Your task to perform on an android device: open app "Gboard" Image 0: 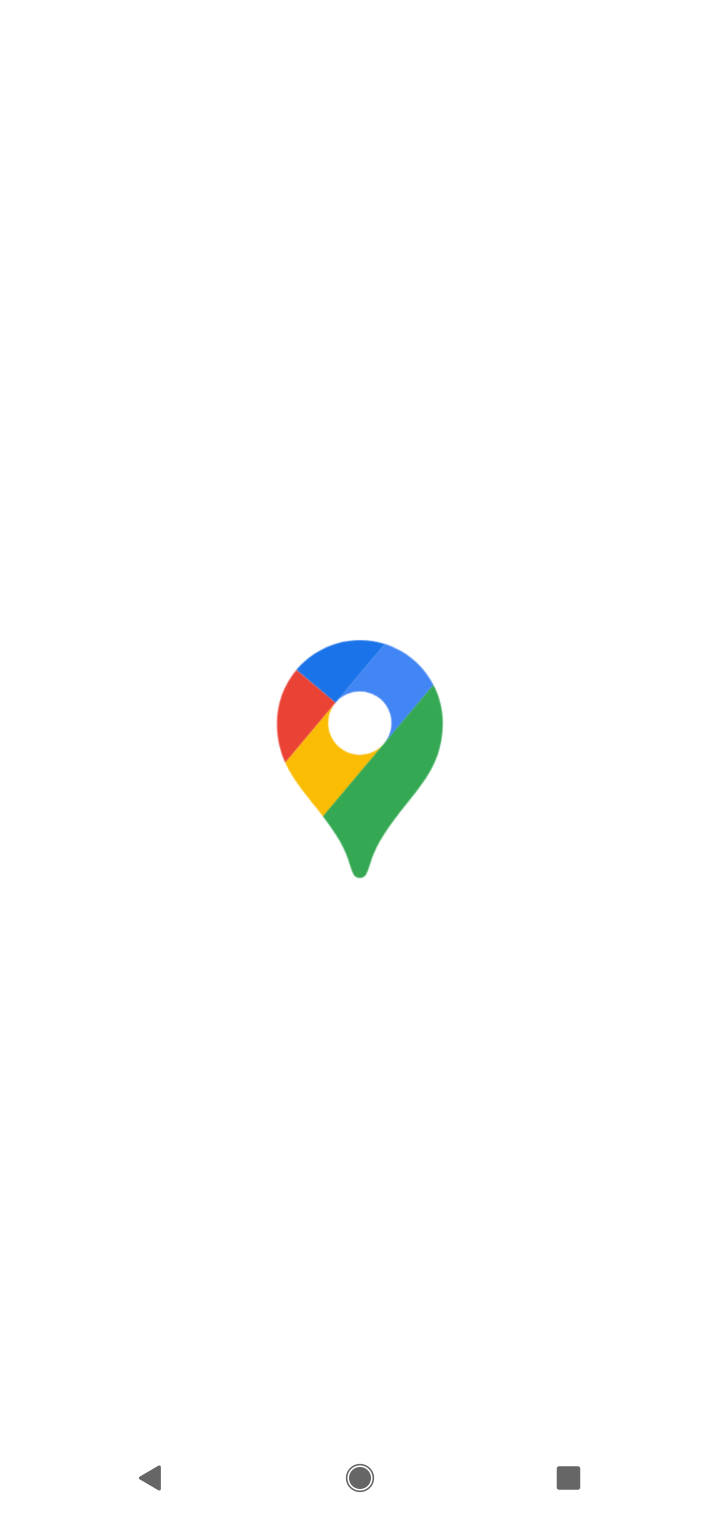
Step 0: press home button
Your task to perform on an android device: open app "Gboard" Image 1: 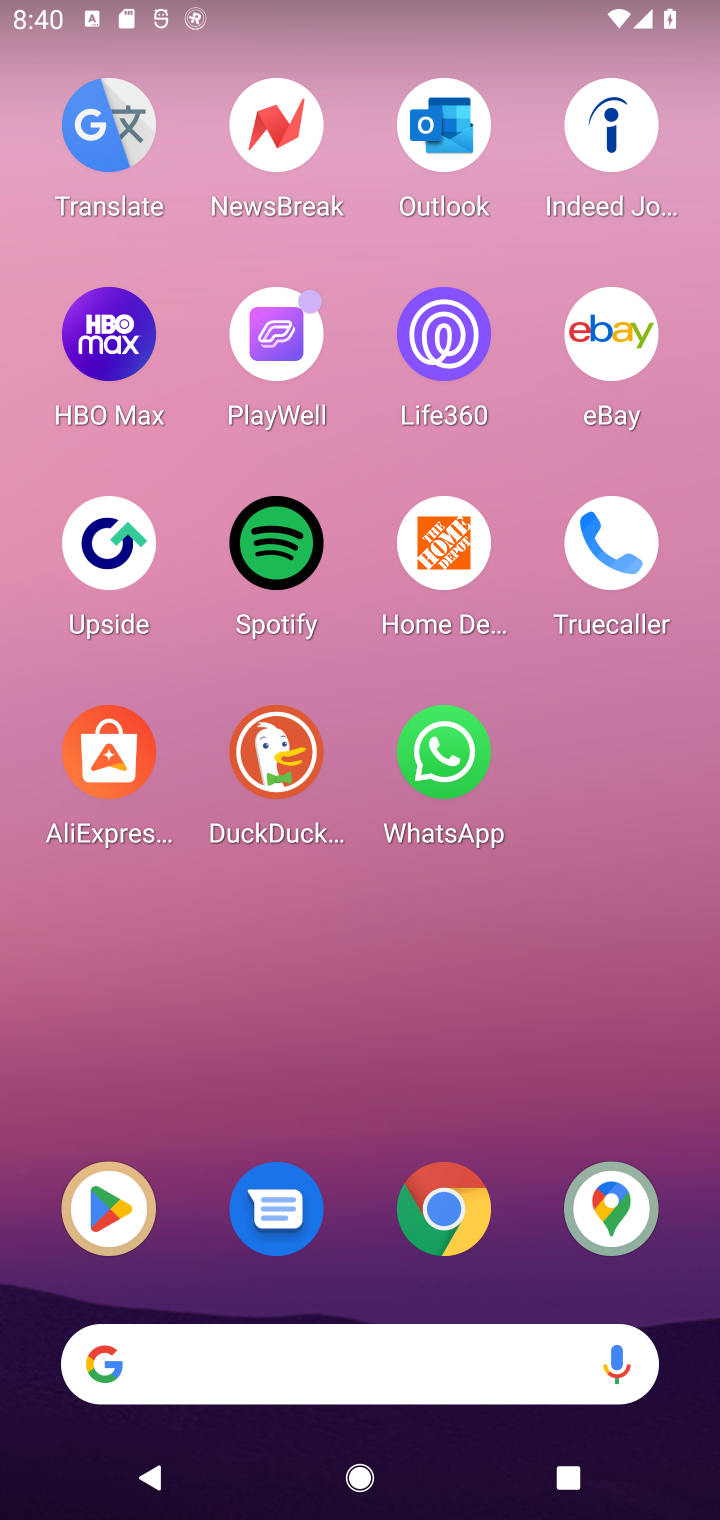
Step 1: click (107, 1201)
Your task to perform on an android device: open app "Gboard" Image 2: 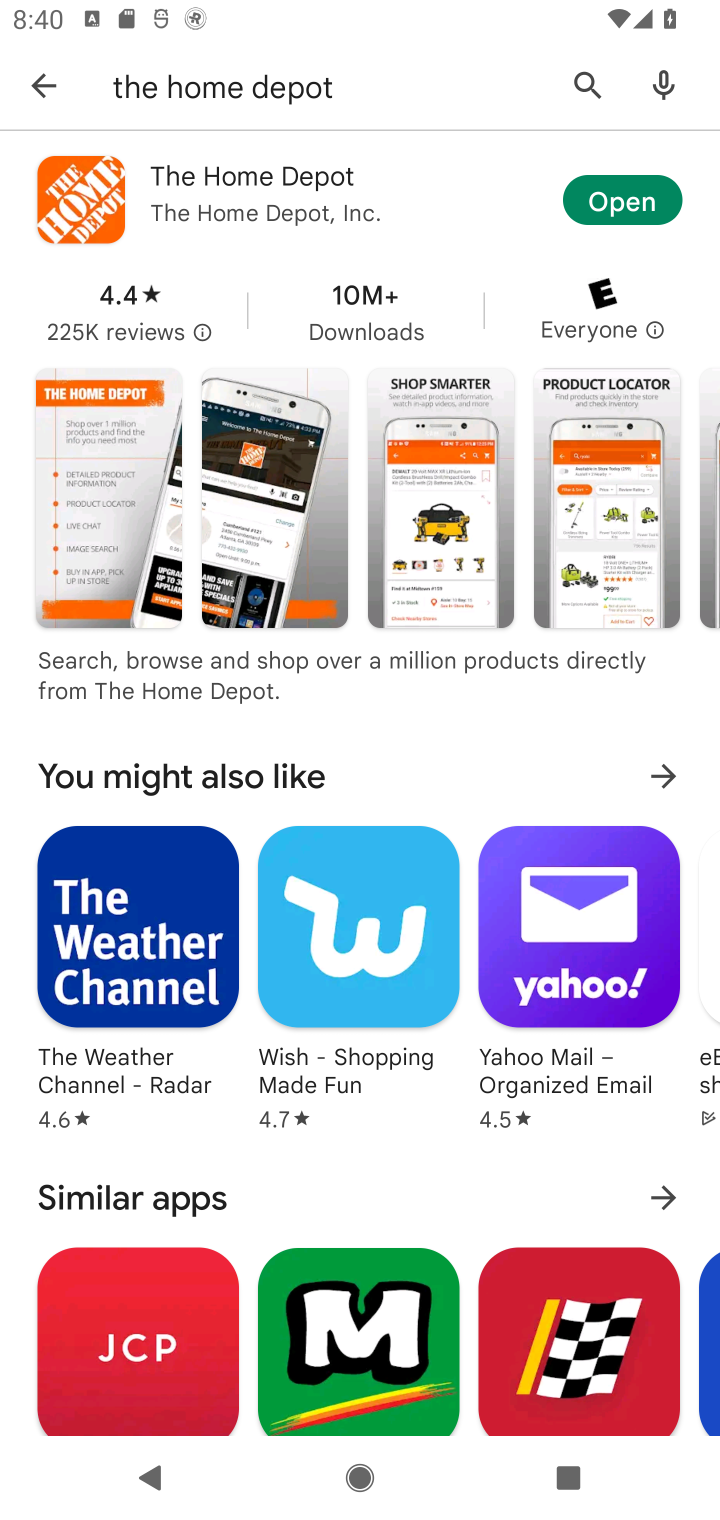
Step 2: click (581, 84)
Your task to perform on an android device: open app "Gboard" Image 3: 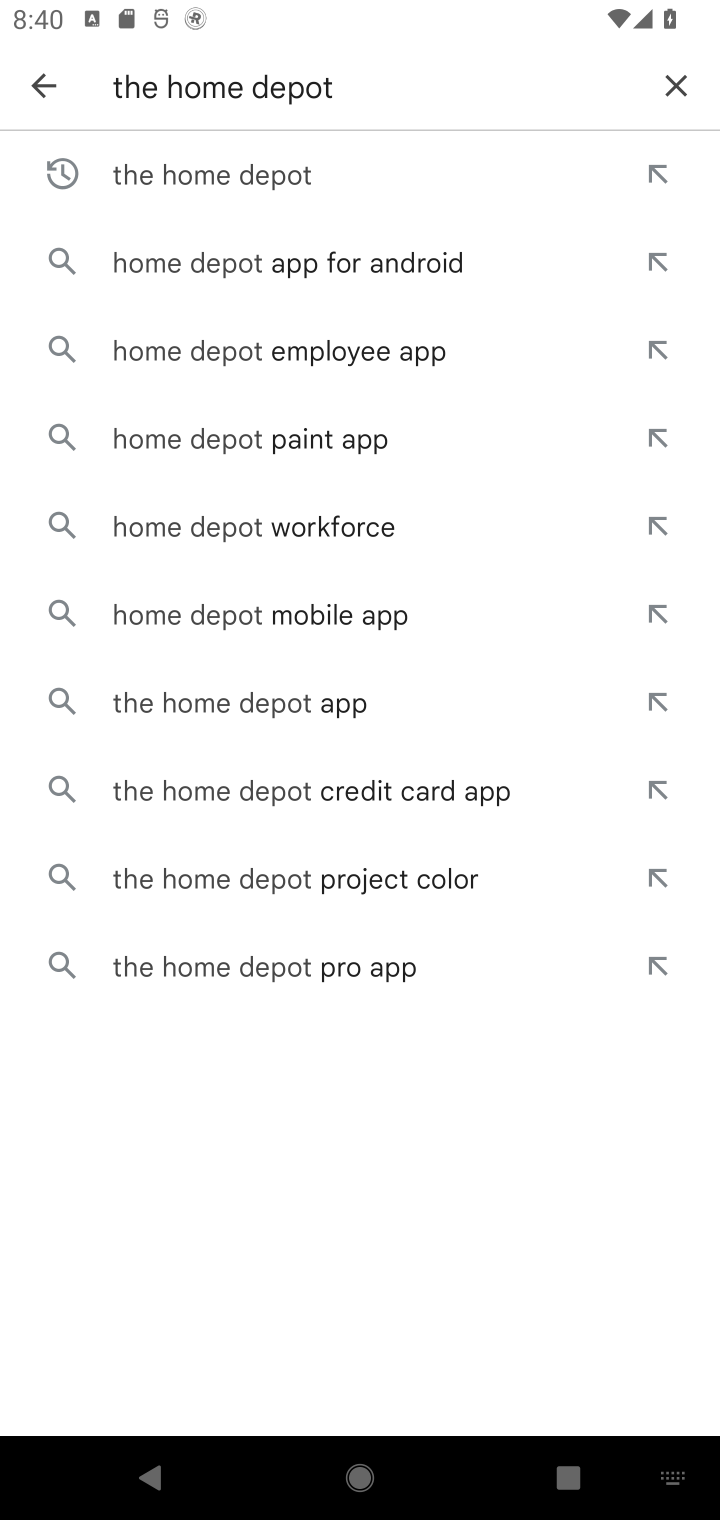
Step 3: click (681, 81)
Your task to perform on an android device: open app "Gboard" Image 4: 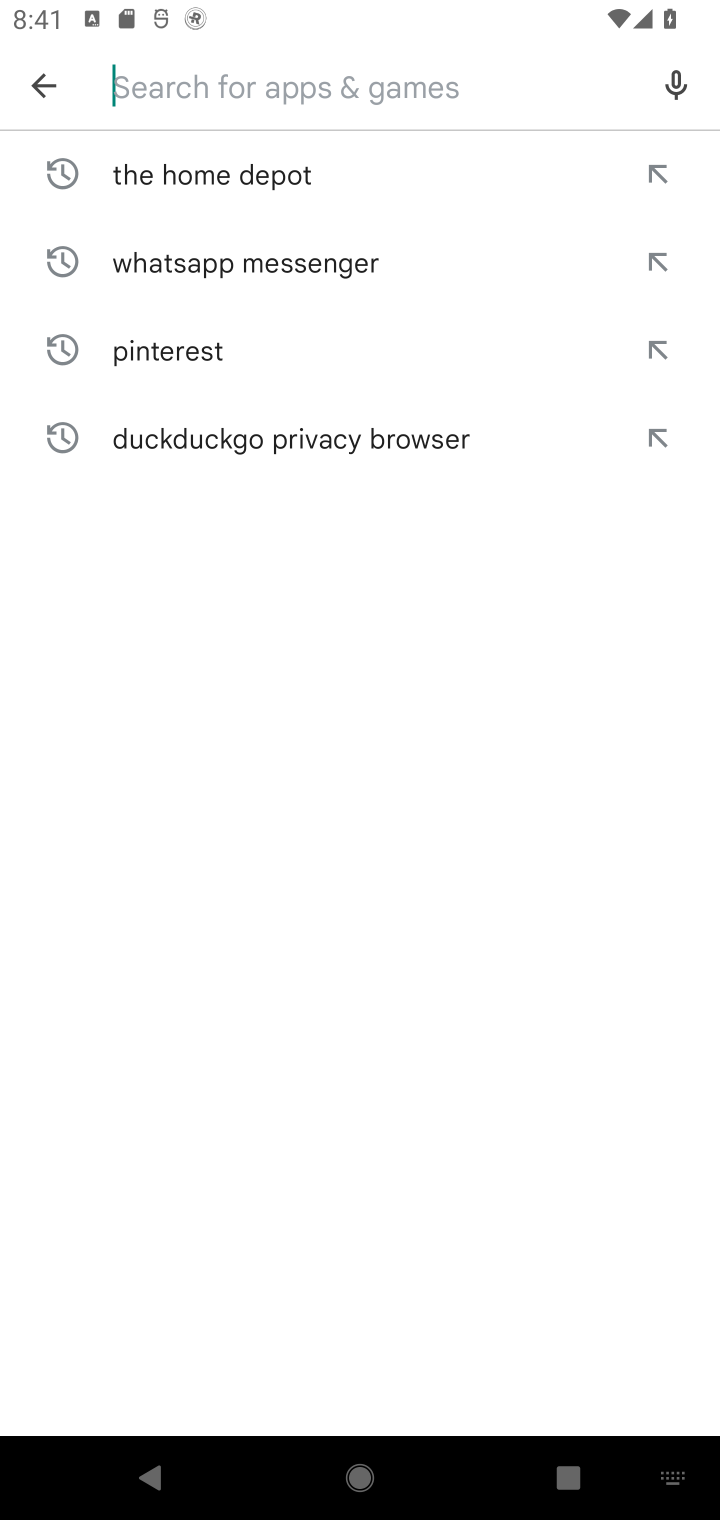
Step 4: type "Gboard"
Your task to perform on an android device: open app "Gboard" Image 5: 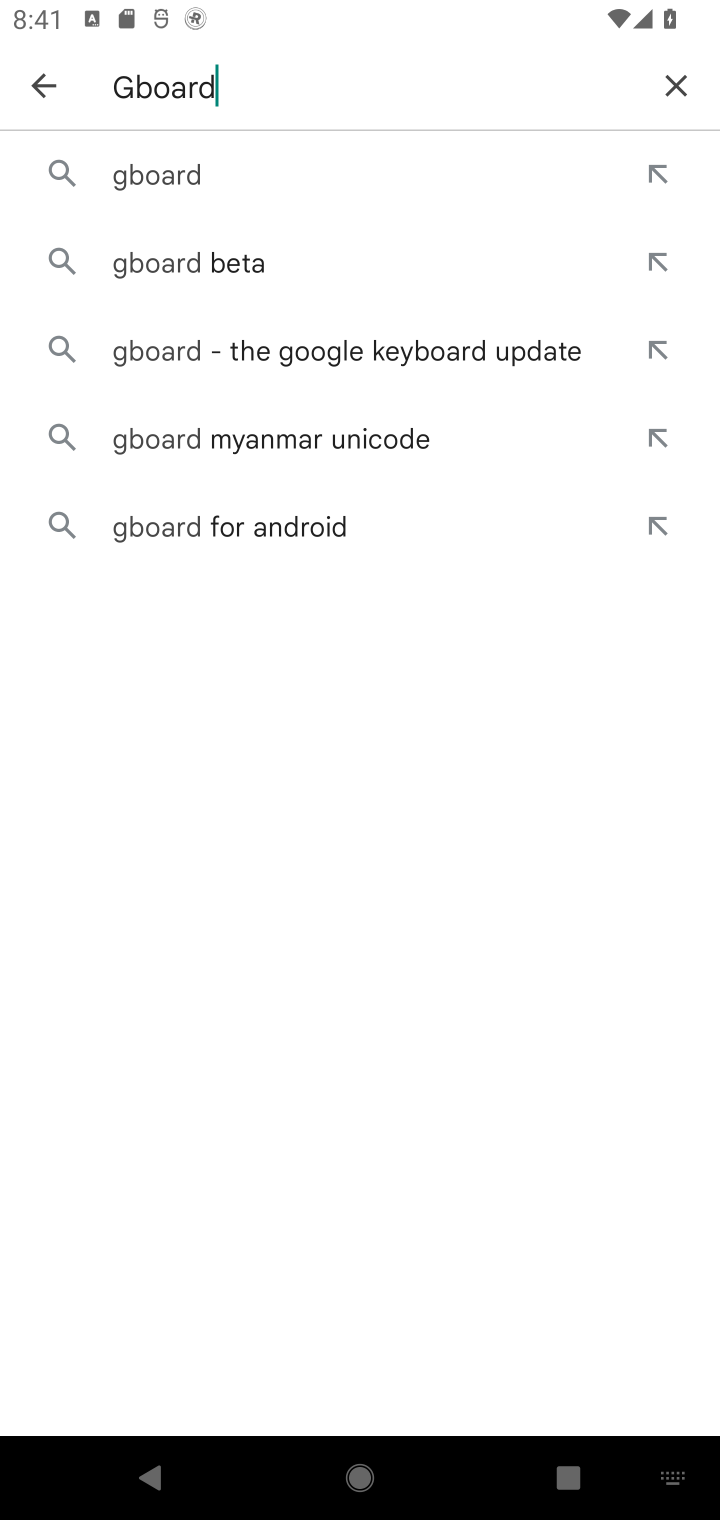
Step 5: click (157, 170)
Your task to perform on an android device: open app "Gboard" Image 6: 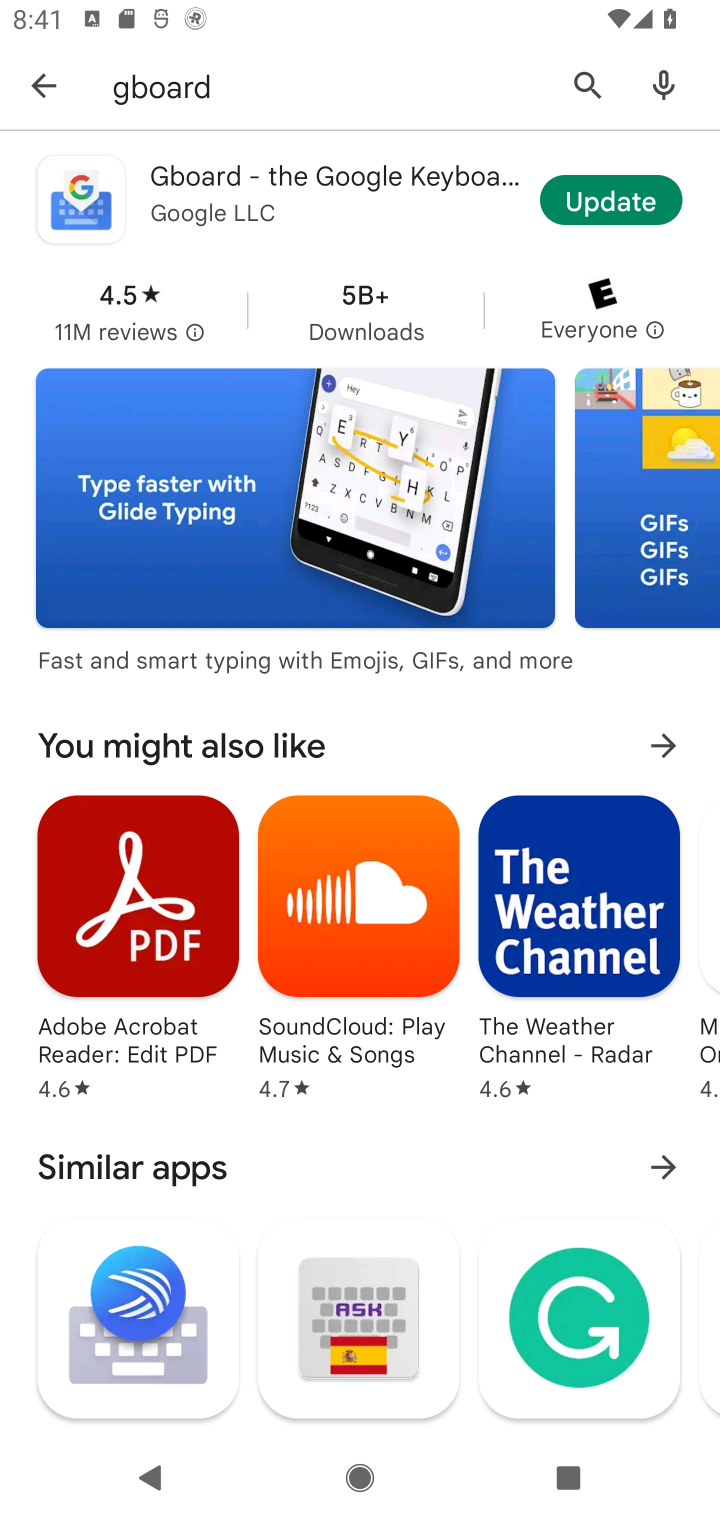
Step 6: click (148, 187)
Your task to perform on an android device: open app "Gboard" Image 7: 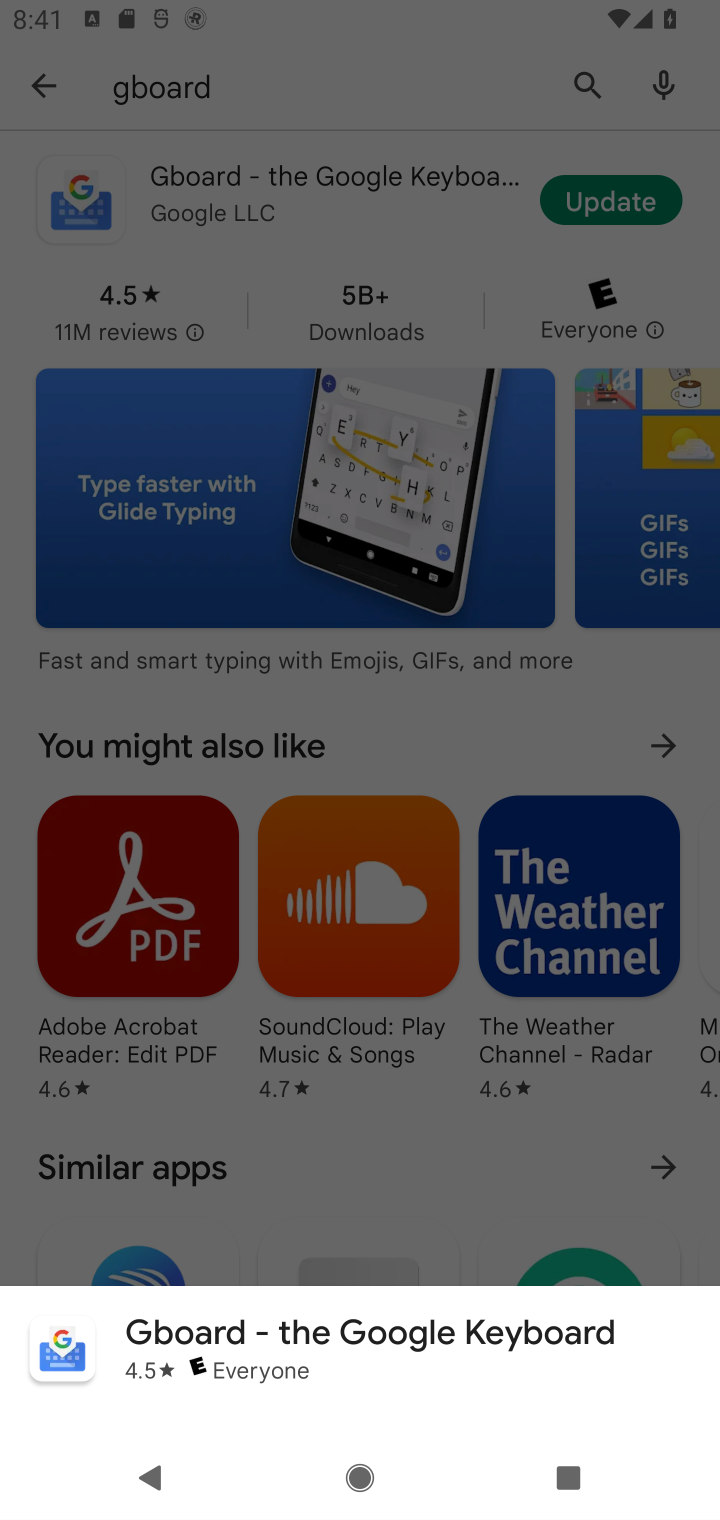
Step 7: click (183, 1345)
Your task to perform on an android device: open app "Gboard" Image 8: 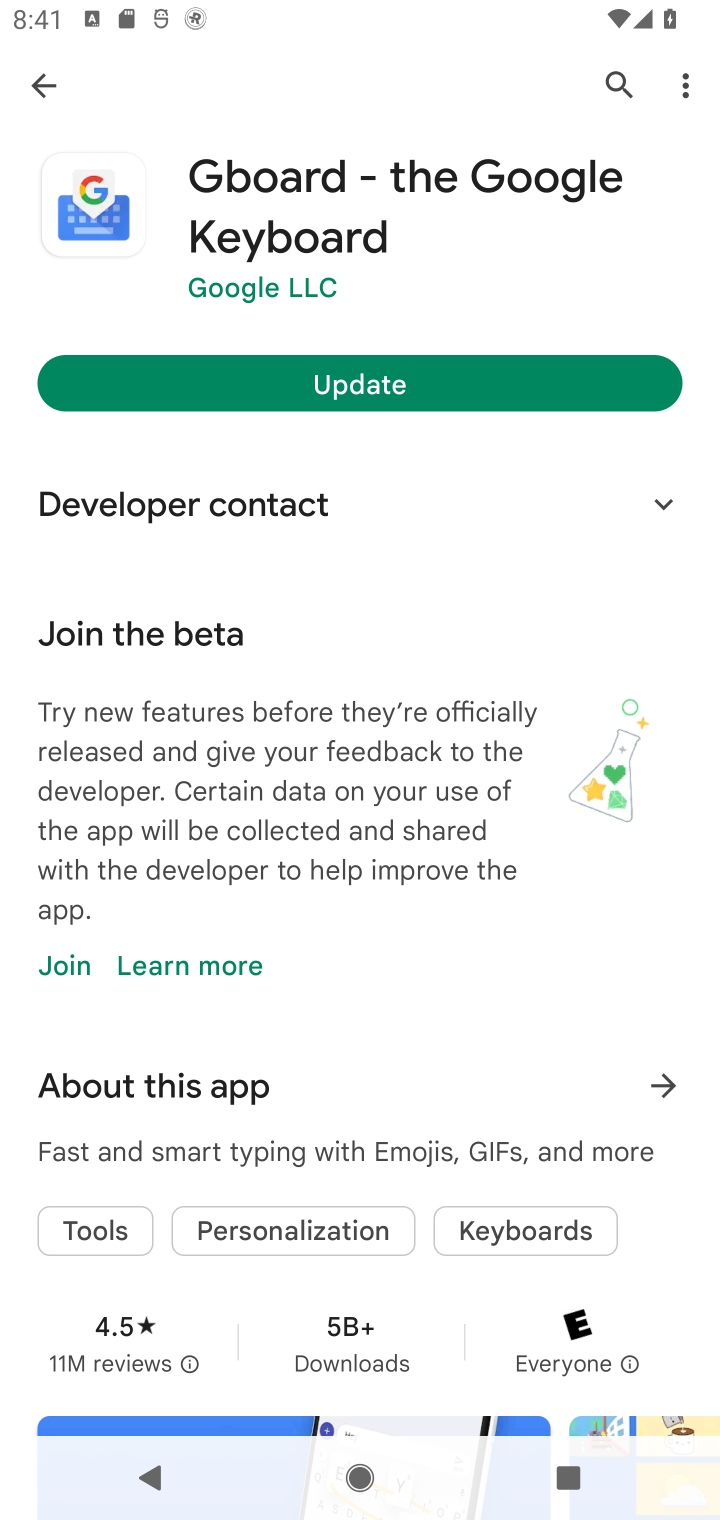
Step 8: click (237, 224)
Your task to perform on an android device: open app "Gboard" Image 9: 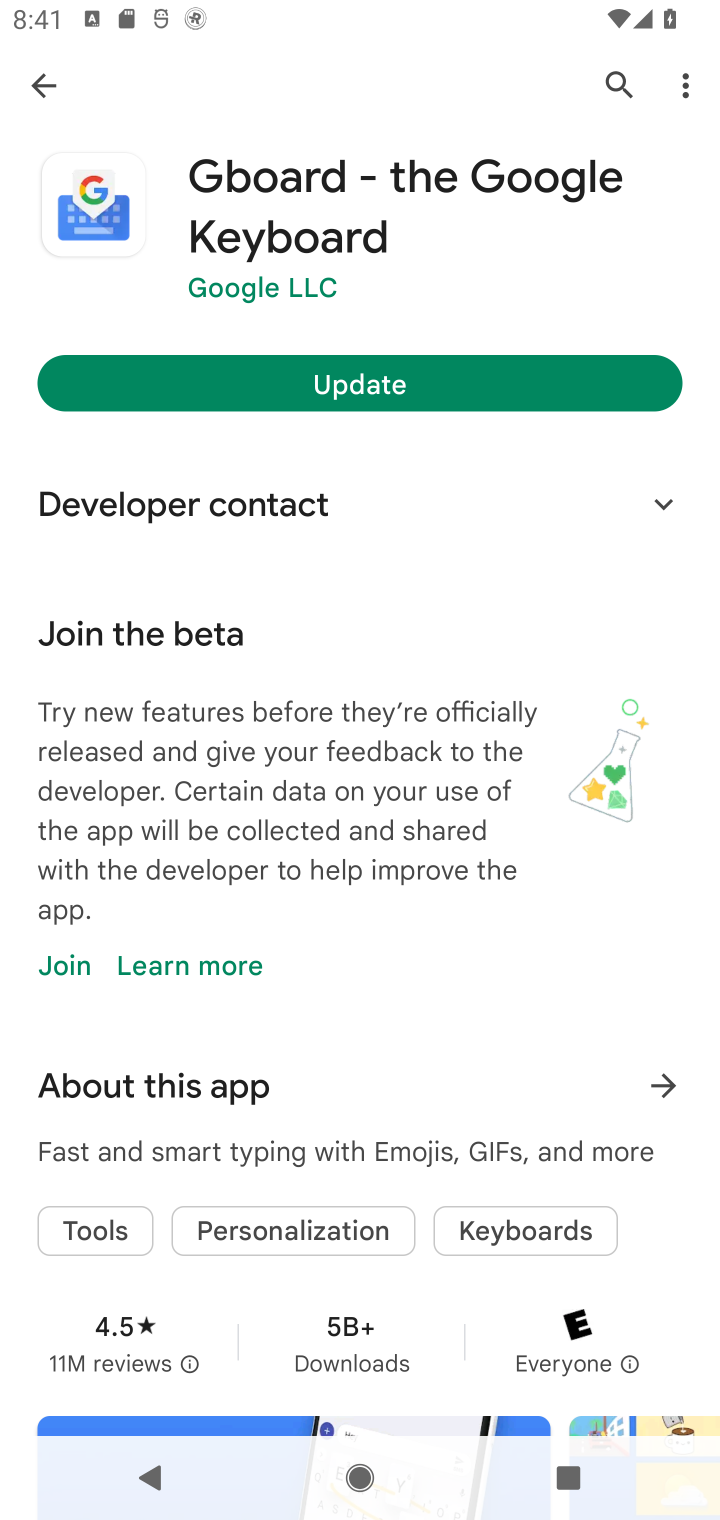
Step 9: click (241, 191)
Your task to perform on an android device: open app "Gboard" Image 10: 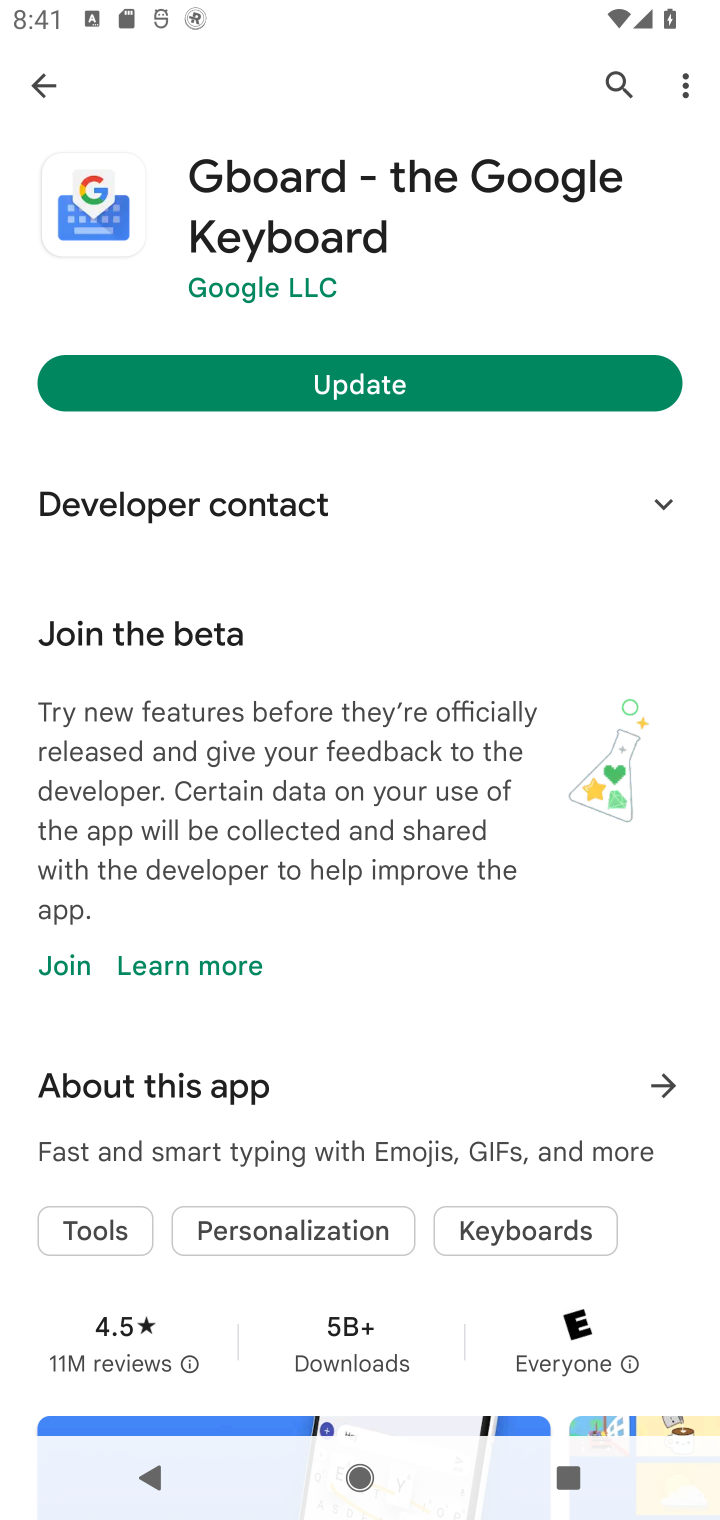
Step 10: press home button
Your task to perform on an android device: open app "Gboard" Image 11: 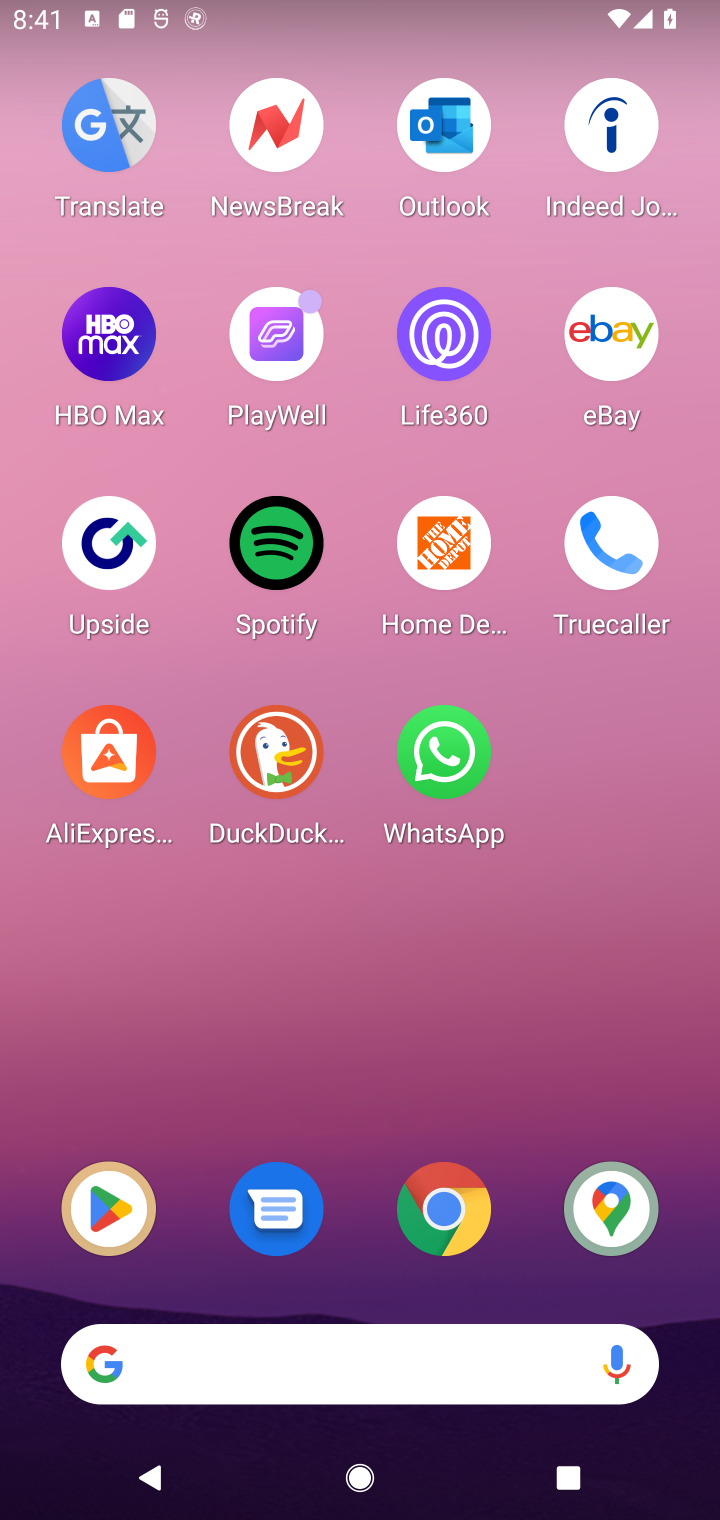
Step 11: drag from (479, 918) to (487, 115)
Your task to perform on an android device: open app "Gboard" Image 12: 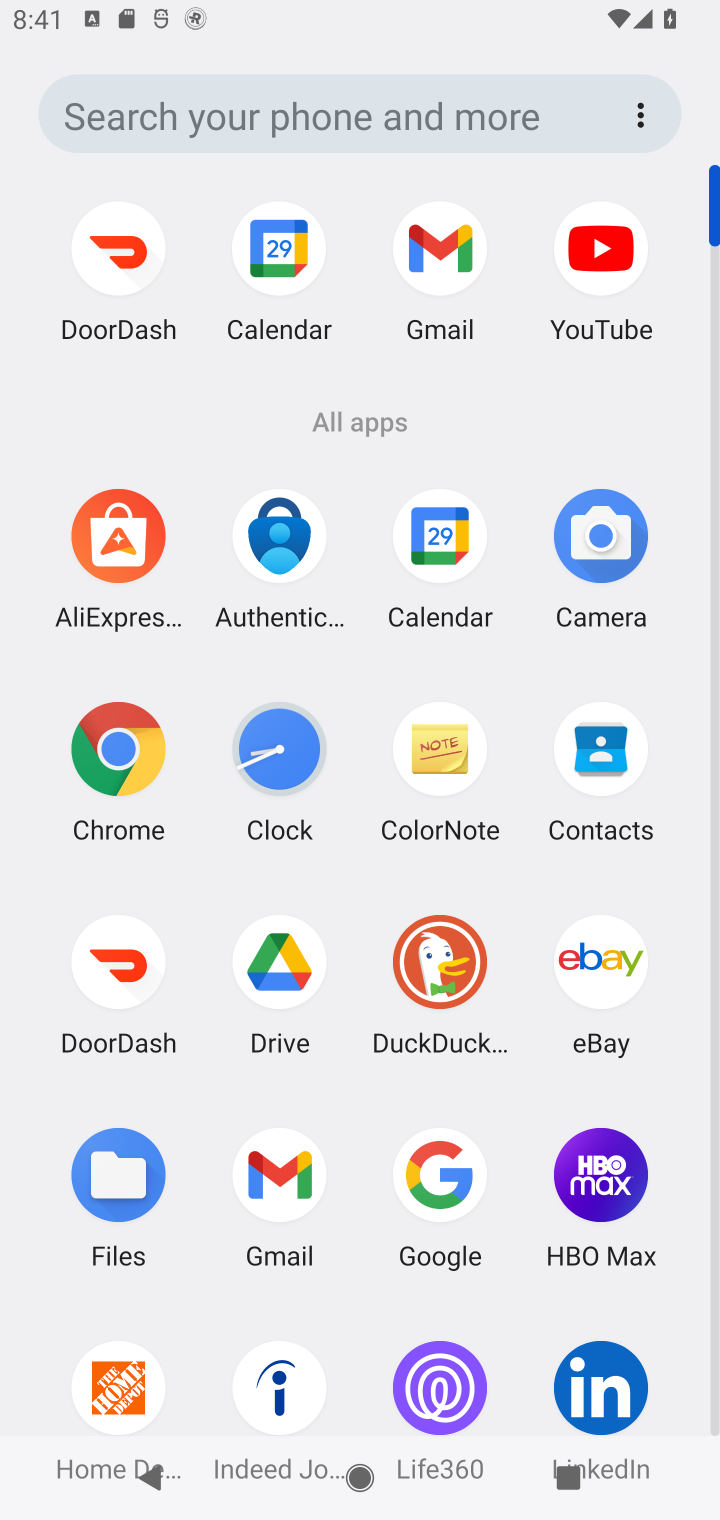
Step 12: drag from (692, 1101) to (718, 845)
Your task to perform on an android device: open app "Gboard" Image 13: 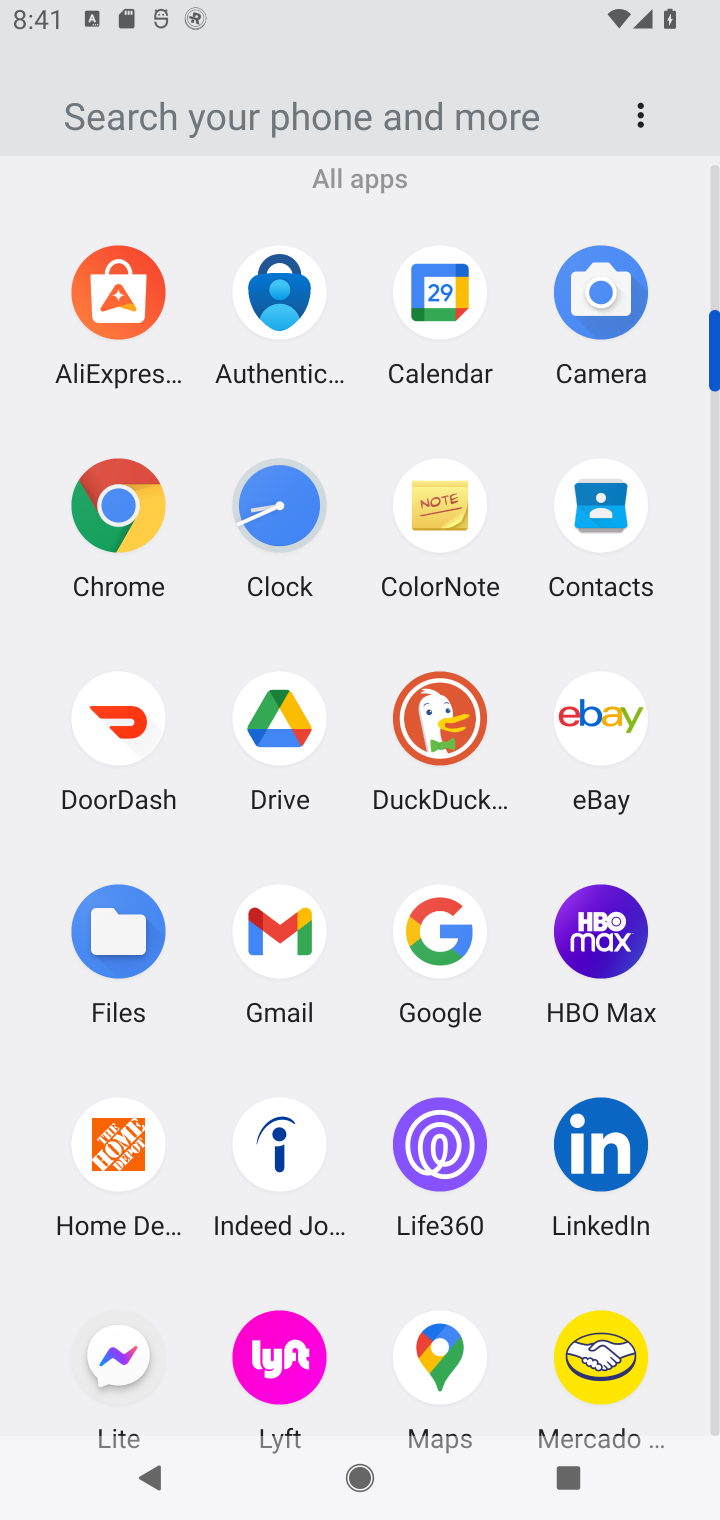
Step 13: drag from (691, 1095) to (717, 1165)
Your task to perform on an android device: open app "Gboard" Image 14: 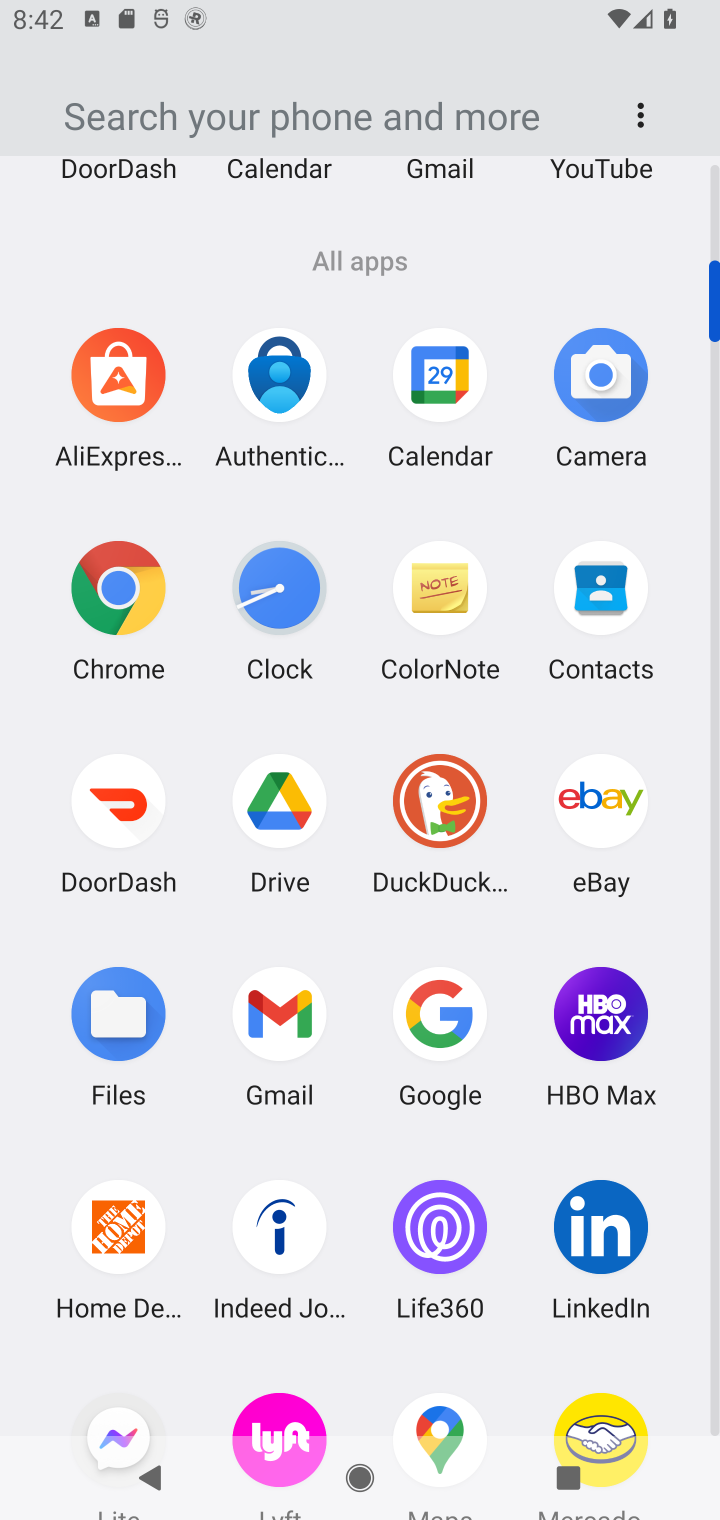
Step 14: click (703, 1227)
Your task to perform on an android device: open app "Gboard" Image 15: 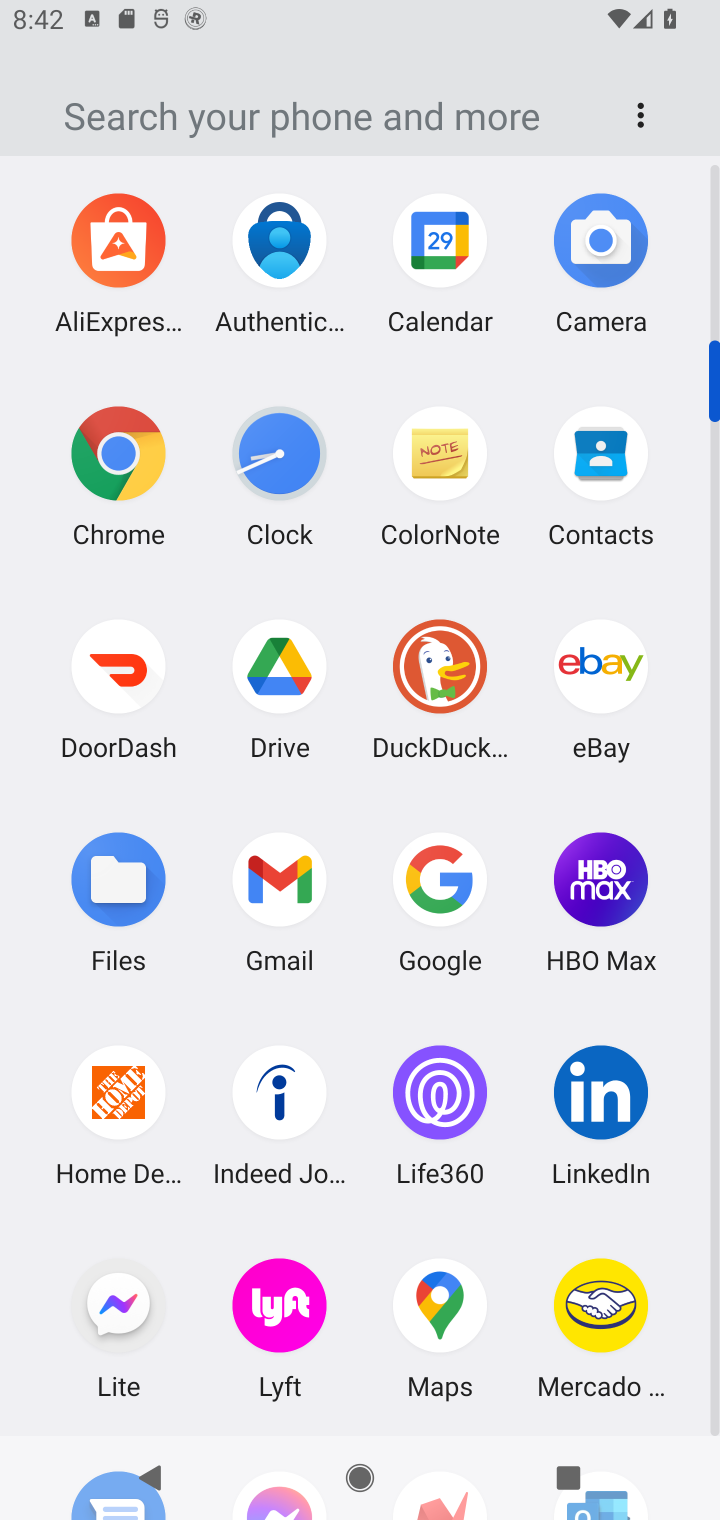
Step 15: task complete